Your task to perform on an android device: turn off picture-in-picture Image 0: 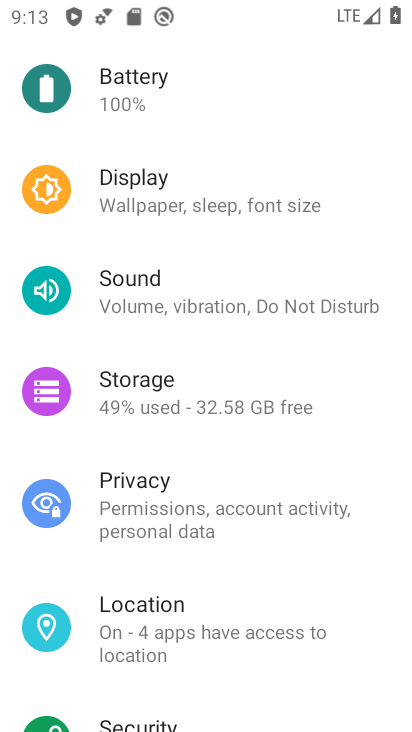
Step 0: drag from (206, 242) to (45, 504)
Your task to perform on an android device: turn off picture-in-picture Image 1: 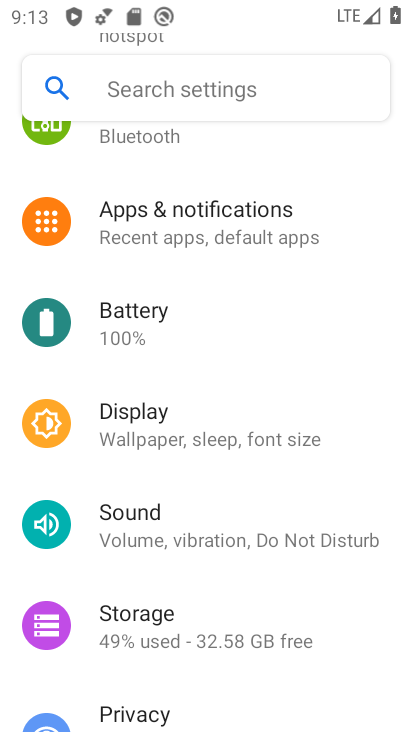
Step 1: click (287, 249)
Your task to perform on an android device: turn off picture-in-picture Image 2: 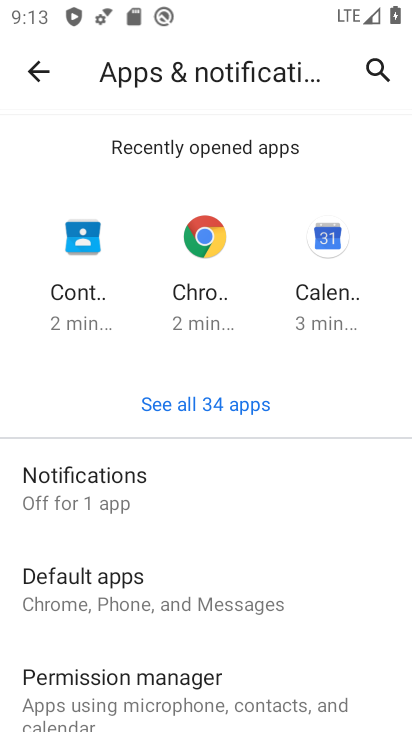
Step 2: drag from (169, 595) to (164, 206)
Your task to perform on an android device: turn off picture-in-picture Image 3: 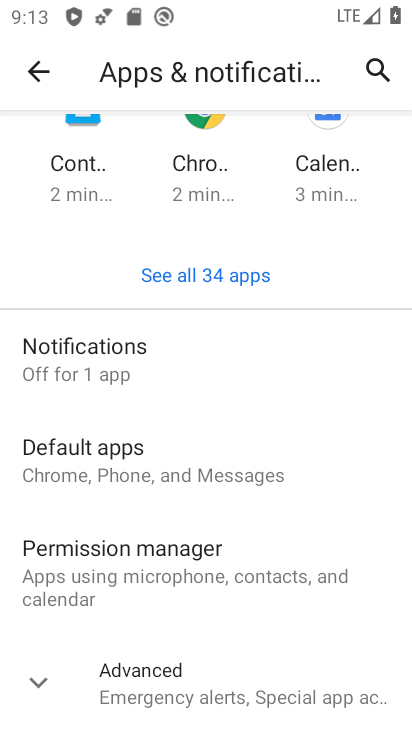
Step 3: click (173, 657)
Your task to perform on an android device: turn off picture-in-picture Image 4: 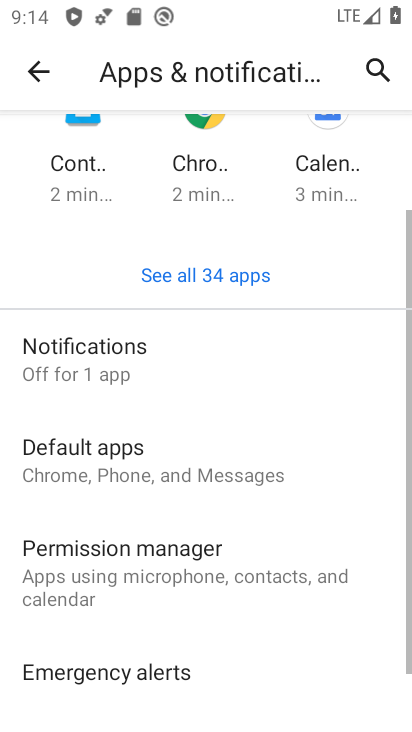
Step 4: drag from (211, 601) to (238, 222)
Your task to perform on an android device: turn off picture-in-picture Image 5: 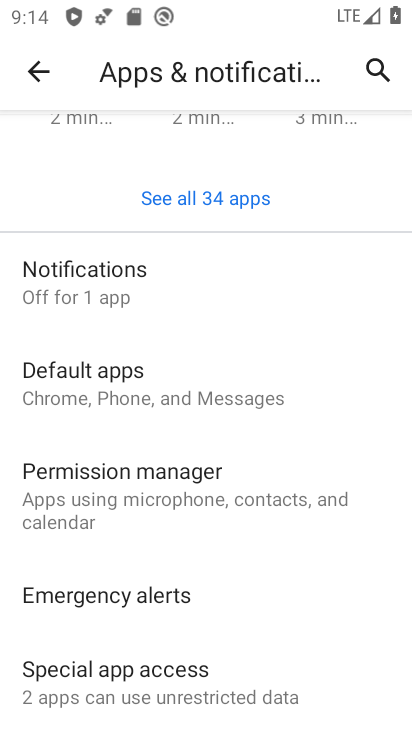
Step 5: click (180, 657)
Your task to perform on an android device: turn off picture-in-picture Image 6: 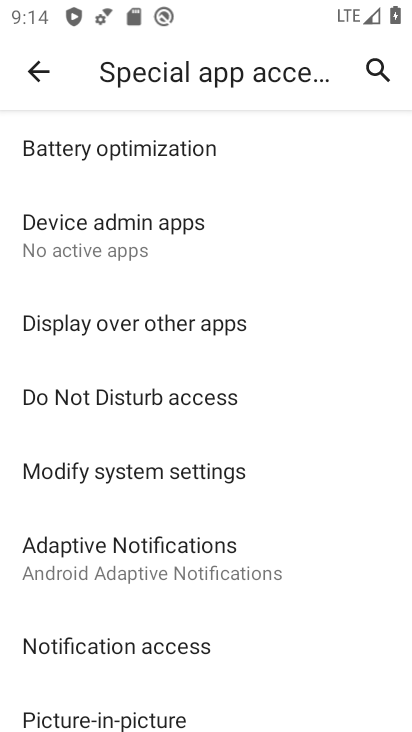
Step 6: drag from (245, 557) to (272, 272)
Your task to perform on an android device: turn off picture-in-picture Image 7: 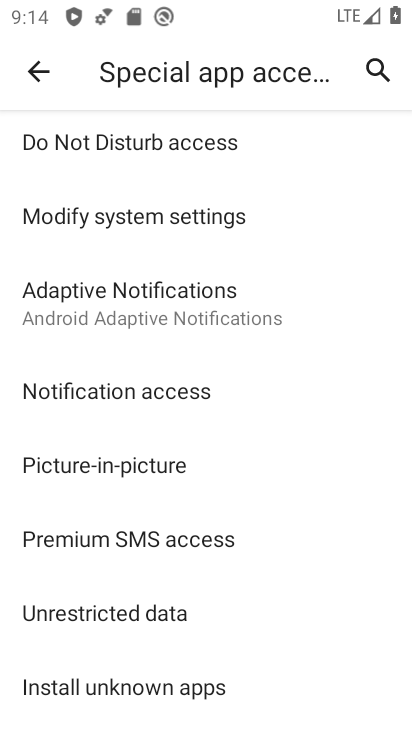
Step 7: click (169, 477)
Your task to perform on an android device: turn off picture-in-picture Image 8: 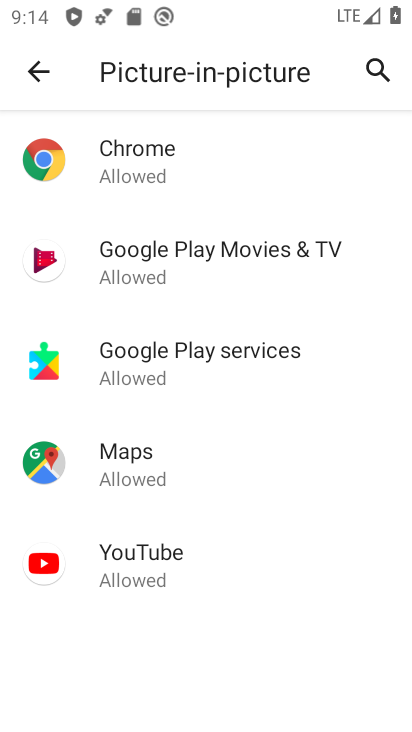
Step 8: click (230, 150)
Your task to perform on an android device: turn off picture-in-picture Image 9: 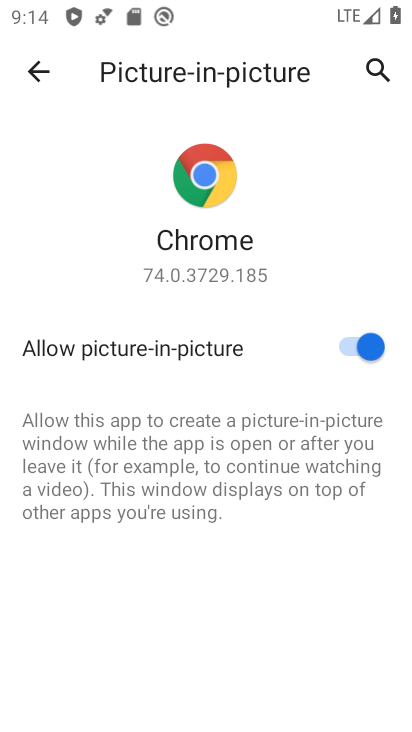
Step 9: click (346, 333)
Your task to perform on an android device: turn off picture-in-picture Image 10: 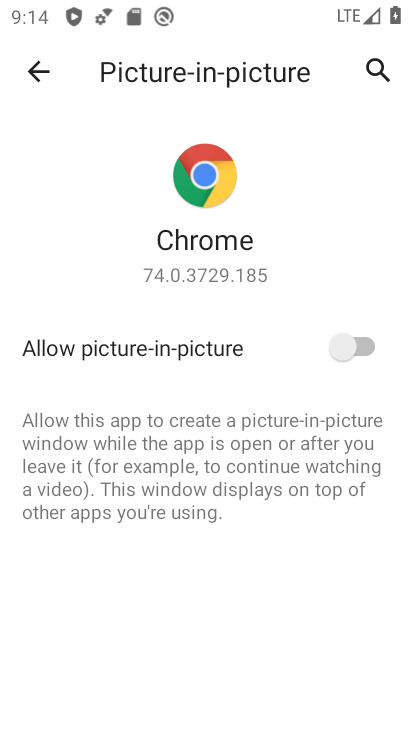
Step 10: task complete